Your task to perform on an android device: Open accessibility settings Image 0: 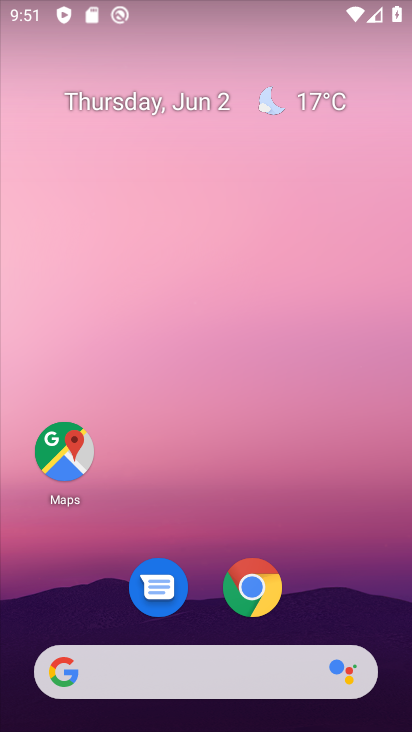
Step 0: press home button
Your task to perform on an android device: Open accessibility settings Image 1: 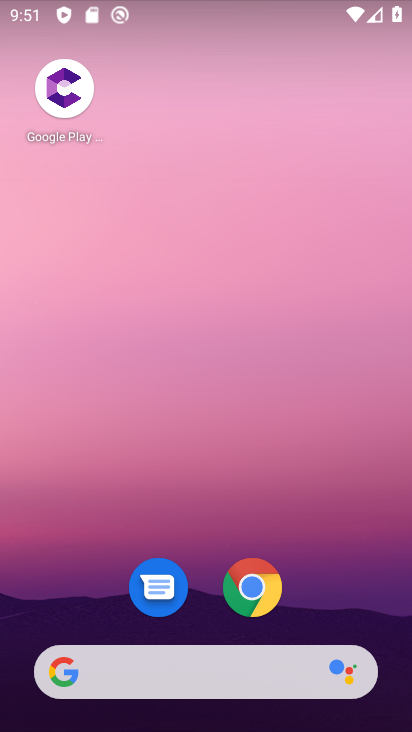
Step 1: drag from (209, 616) to (190, 172)
Your task to perform on an android device: Open accessibility settings Image 2: 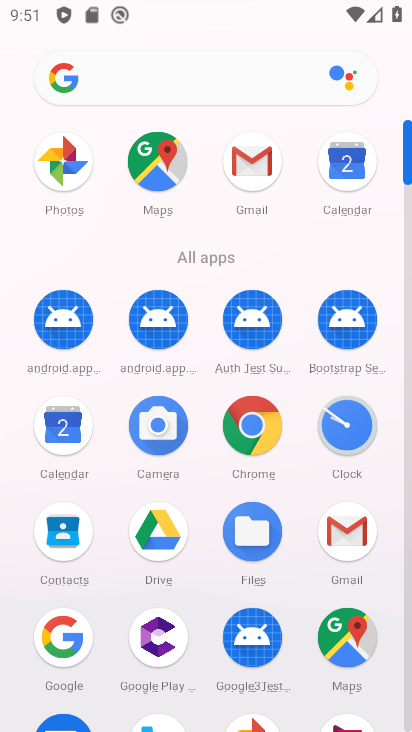
Step 2: drag from (199, 603) to (195, 160)
Your task to perform on an android device: Open accessibility settings Image 3: 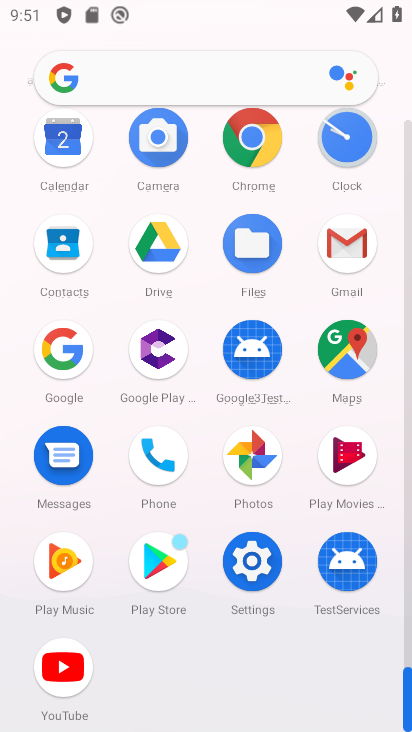
Step 3: click (249, 555)
Your task to perform on an android device: Open accessibility settings Image 4: 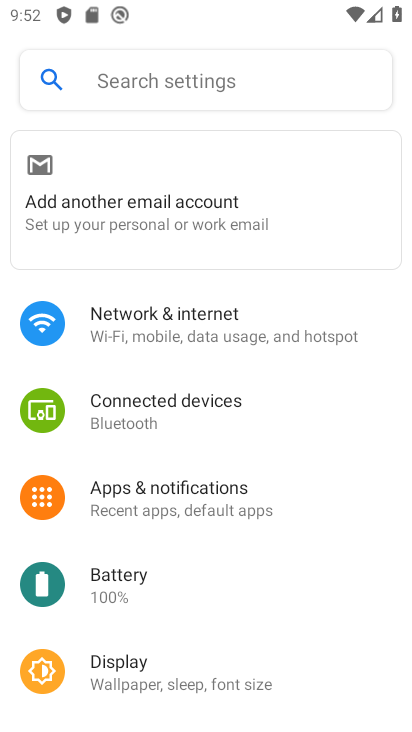
Step 4: drag from (206, 671) to (195, 169)
Your task to perform on an android device: Open accessibility settings Image 5: 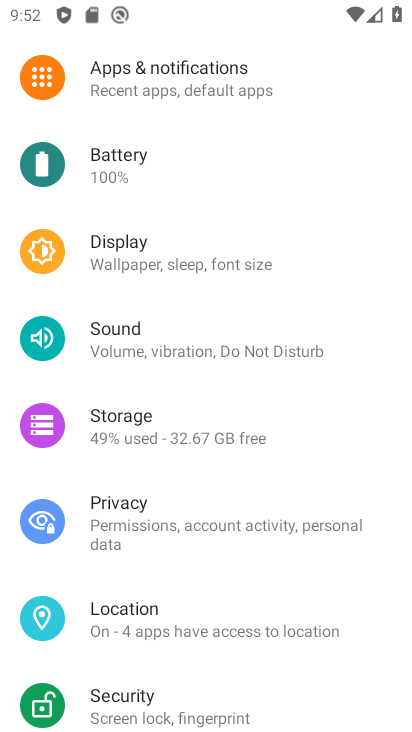
Step 5: drag from (199, 691) to (205, 226)
Your task to perform on an android device: Open accessibility settings Image 6: 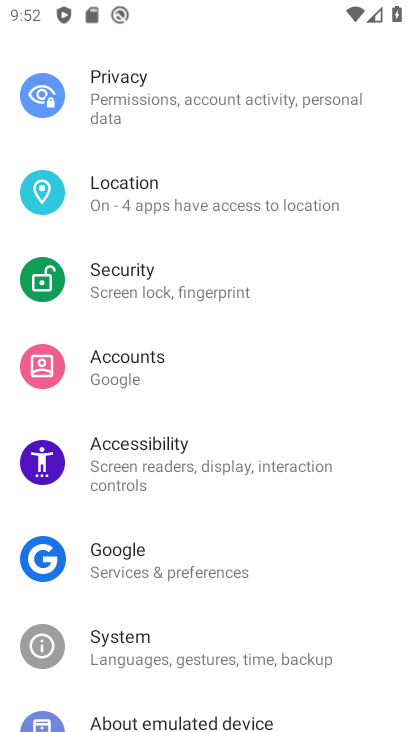
Step 6: click (200, 442)
Your task to perform on an android device: Open accessibility settings Image 7: 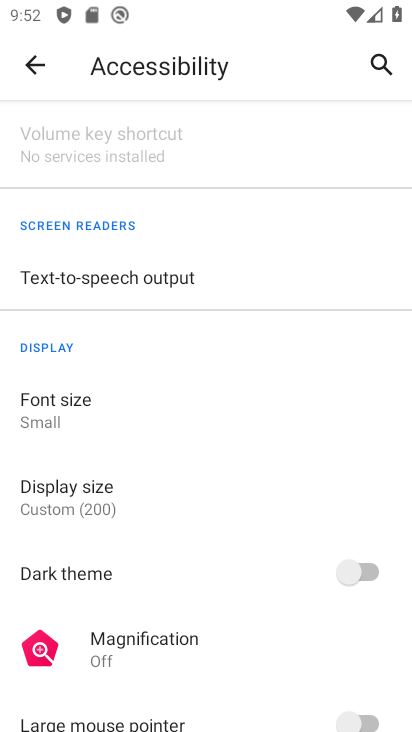
Step 7: task complete